Your task to perform on an android device: move a message to another label in the gmail app Image 0: 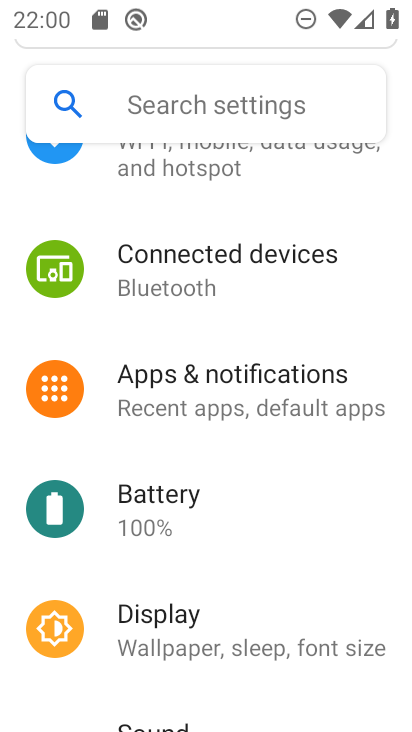
Step 0: press home button
Your task to perform on an android device: move a message to another label in the gmail app Image 1: 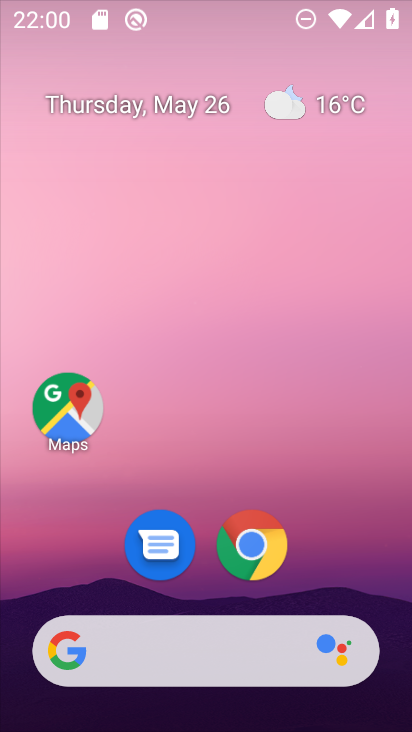
Step 1: drag from (350, 558) to (307, 74)
Your task to perform on an android device: move a message to another label in the gmail app Image 2: 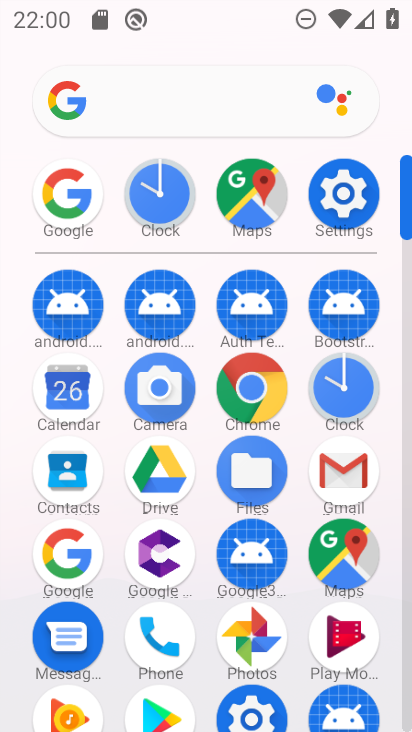
Step 2: click (339, 473)
Your task to perform on an android device: move a message to another label in the gmail app Image 3: 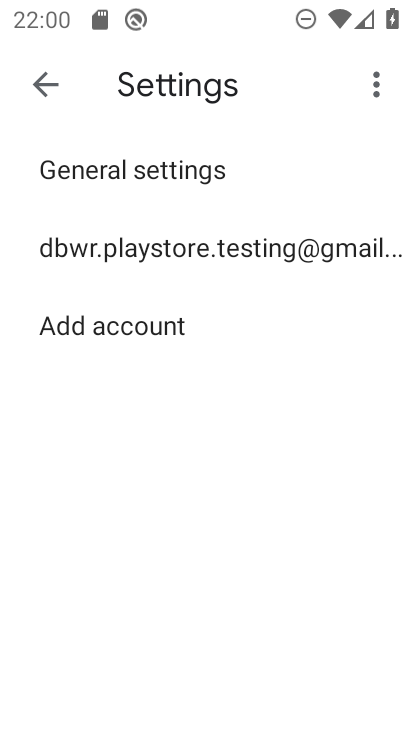
Step 3: click (202, 247)
Your task to perform on an android device: move a message to another label in the gmail app Image 4: 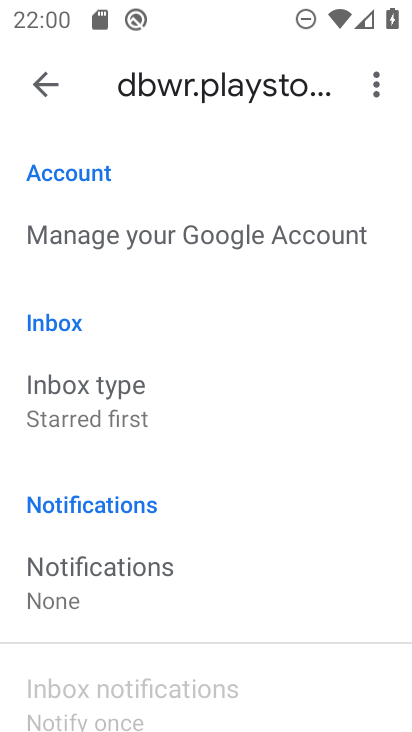
Step 4: press back button
Your task to perform on an android device: move a message to another label in the gmail app Image 5: 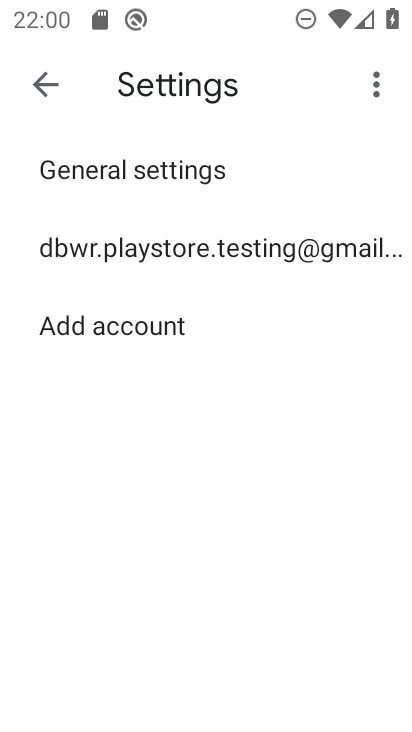
Step 5: press back button
Your task to perform on an android device: move a message to another label in the gmail app Image 6: 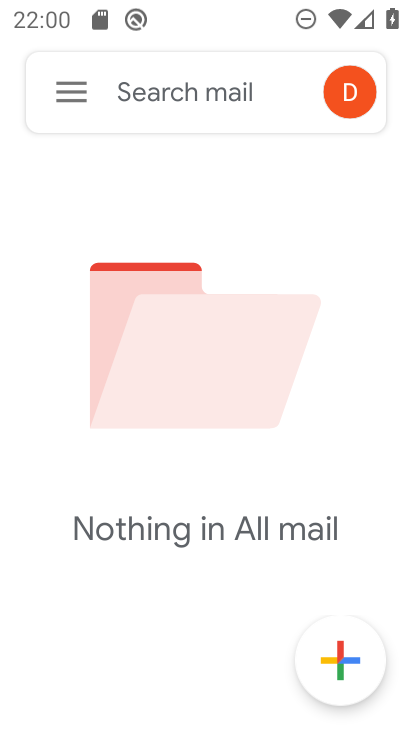
Step 6: click (56, 91)
Your task to perform on an android device: move a message to another label in the gmail app Image 7: 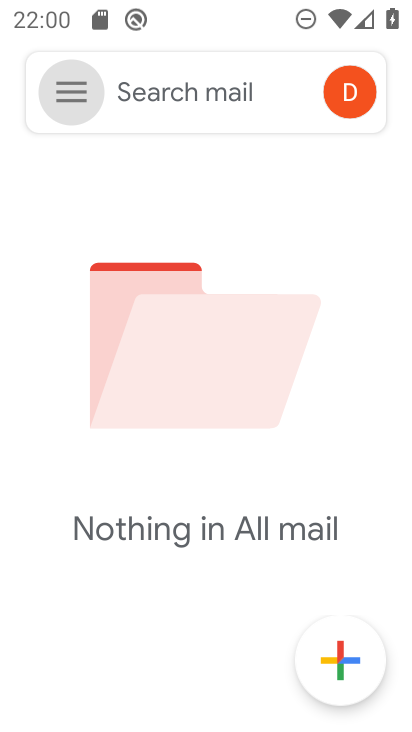
Step 7: click (56, 91)
Your task to perform on an android device: move a message to another label in the gmail app Image 8: 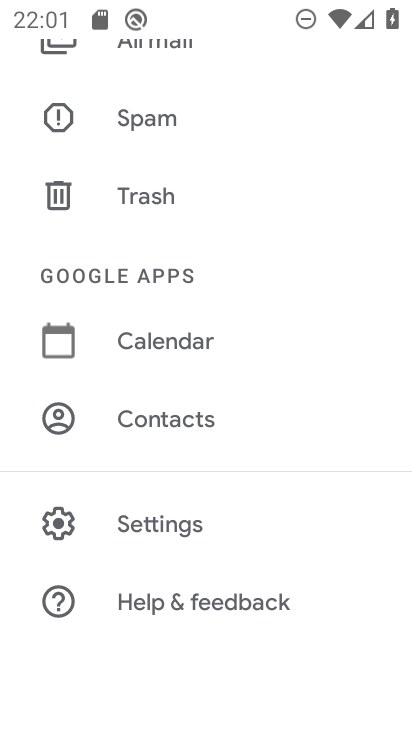
Step 8: drag from (339, 214) to (409, 227)
Your task to perform on an android device: move a message to another label in the gmail app Image 9: 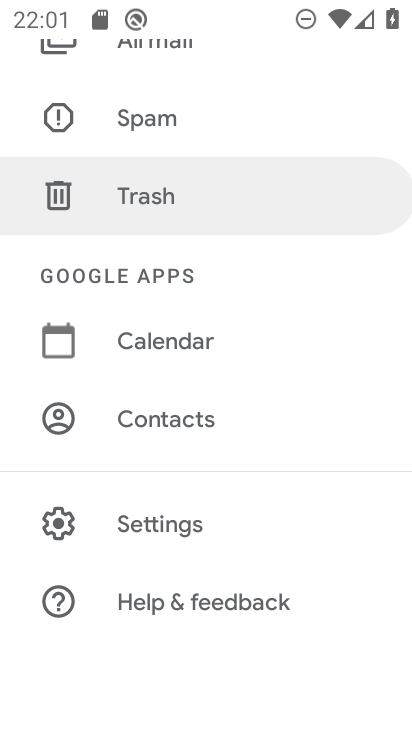
Step 9: press back button
Your task to perform on an android device: move a message to another label in the gmail app Image 10: 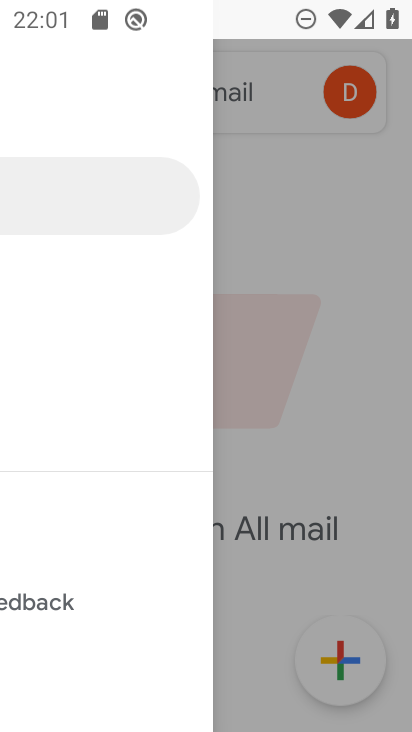
Step 10: click (409, 227)
Your task to perform on an android device: move a message to another label in the gmail app Image 11: 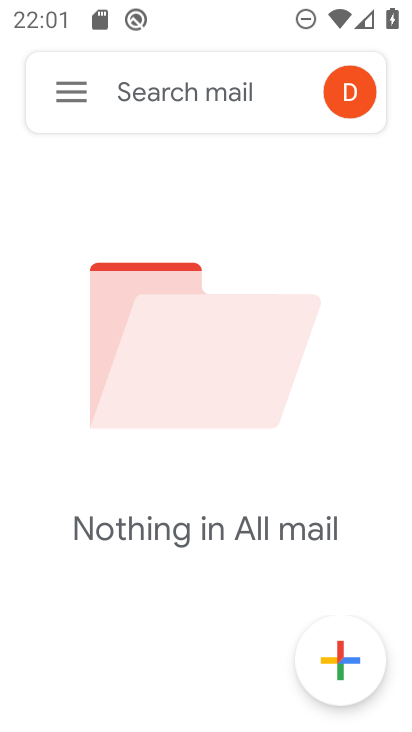
Step 11: task complete